Your task to perform on an android device: Go to Yahoo.com Image 0: 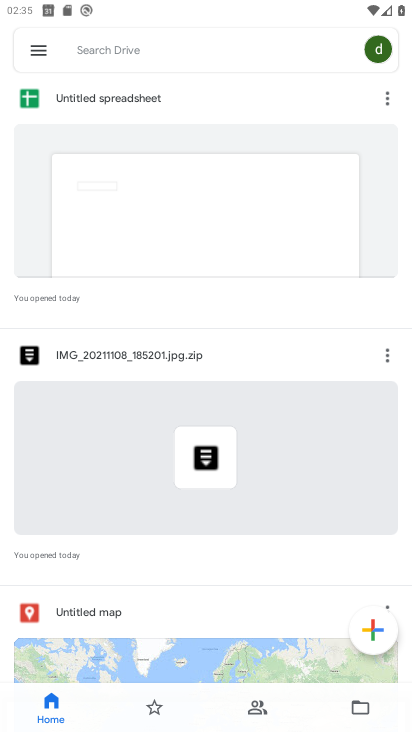
Step 0: press home button
Your task to perform on an android device: Go to Yahoo.com Image 1: 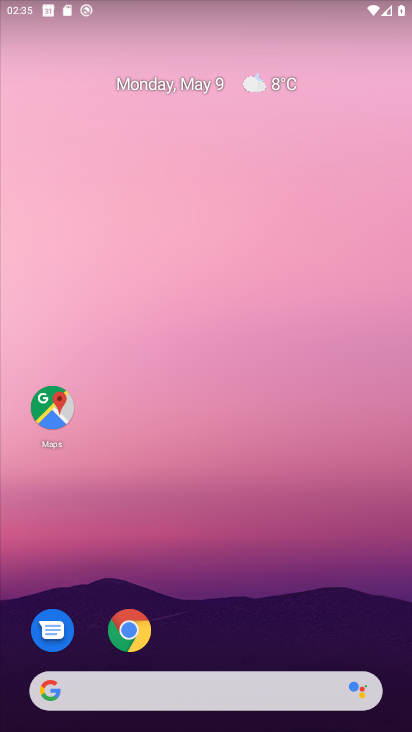
Step 1: click (134, 628)
Your task to perform on an android device: Go to Yahoo.com Image 2: 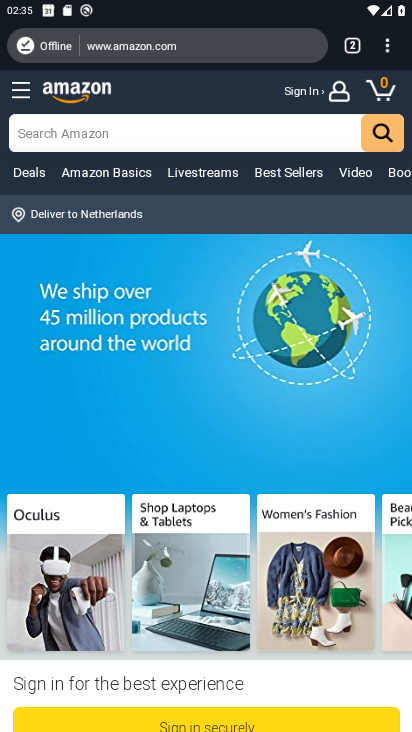
Step 2: click (391, 56)
Your task to perform on an android device: Go to Yahoo.com Image 3: 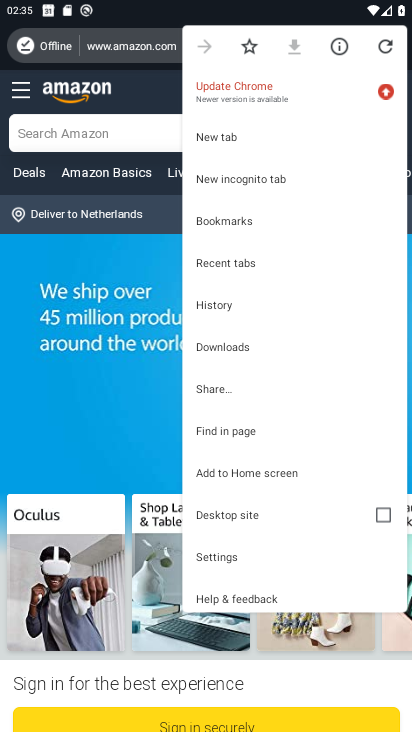
Step 3: click (230, 139)
Your task to perform on an android device: Go to Yahoo.com Image 4: 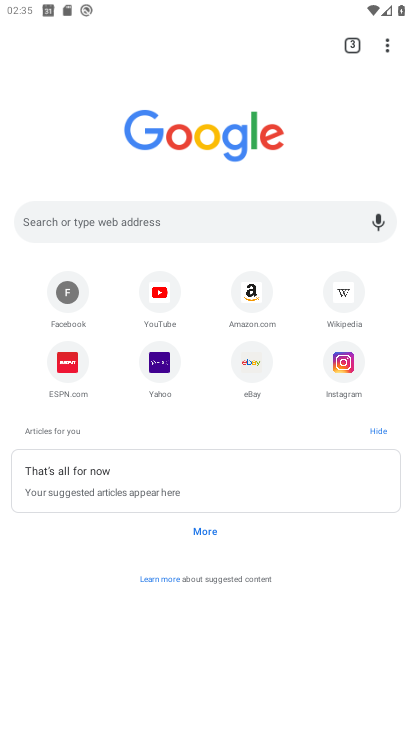
Step 4: click (164, 378)
Your task to perform on an android device: Go to Yahoo.com Image 5: 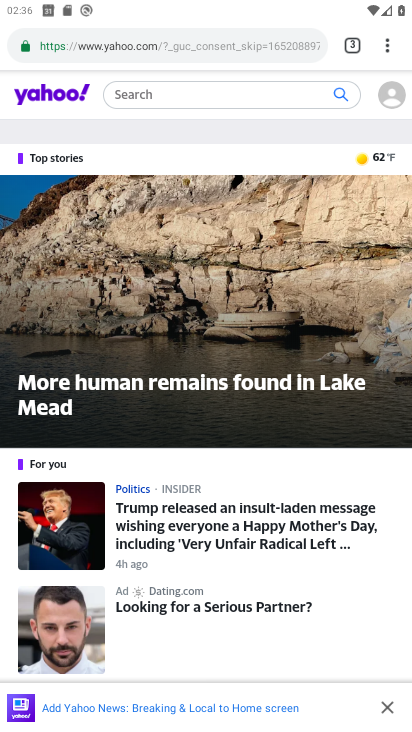
Step 5: task complete